Your task to perform on an android device: Open the map Image 0: 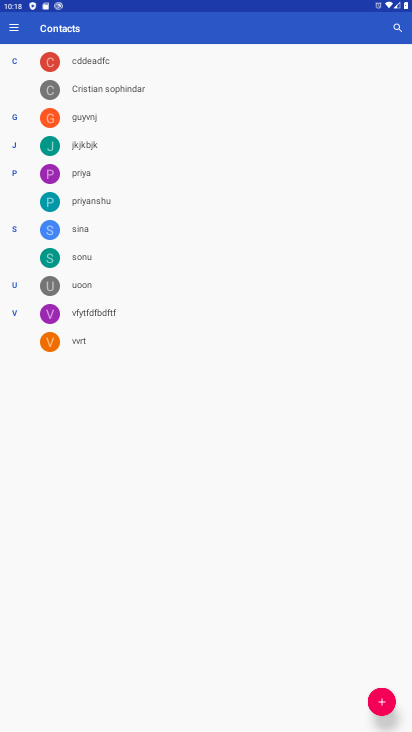
Step 0: press home button
Your task to perform on an android device: Open the map Image 1: 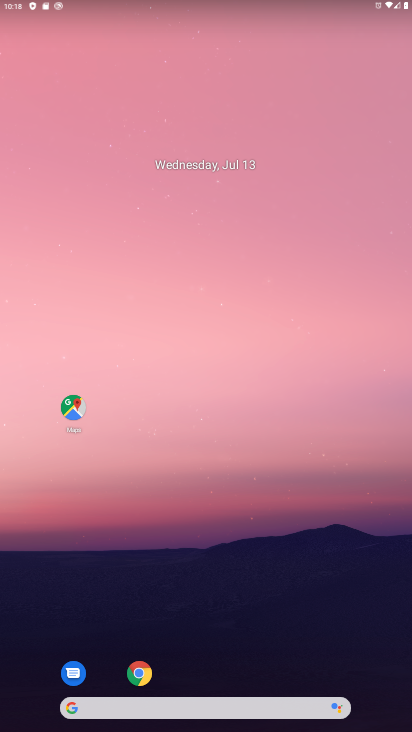
Step 1: click (75, 409)
Your task to perform on an android device: Open the map Image 2: 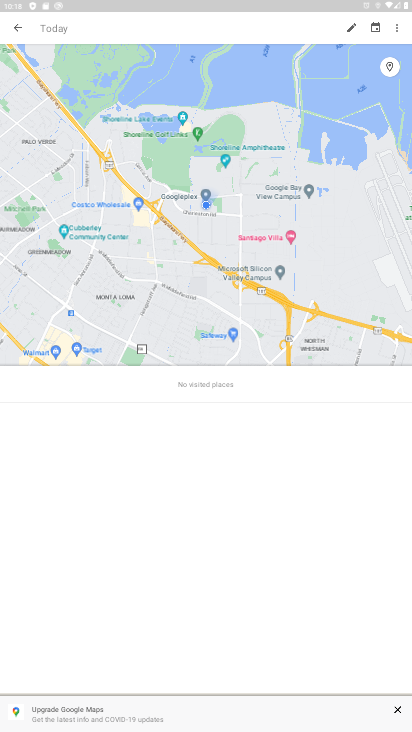
Step 2: click (17, 25)
Your task to perform on an android device: Open the map Image 3: 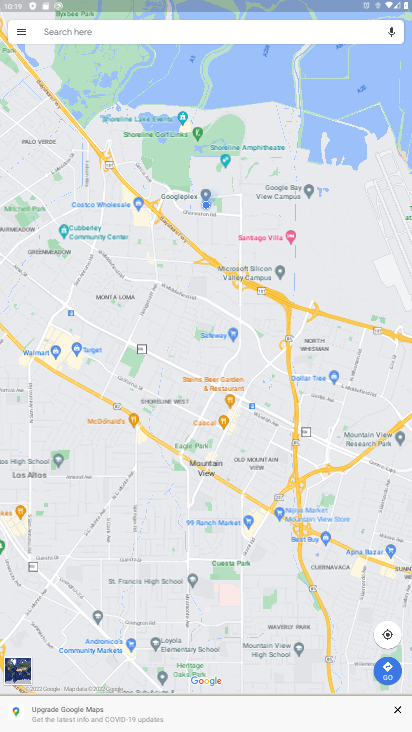
Step 3: task complete